Your task to perform on an android device: change the clock display to show seconds Image 0: 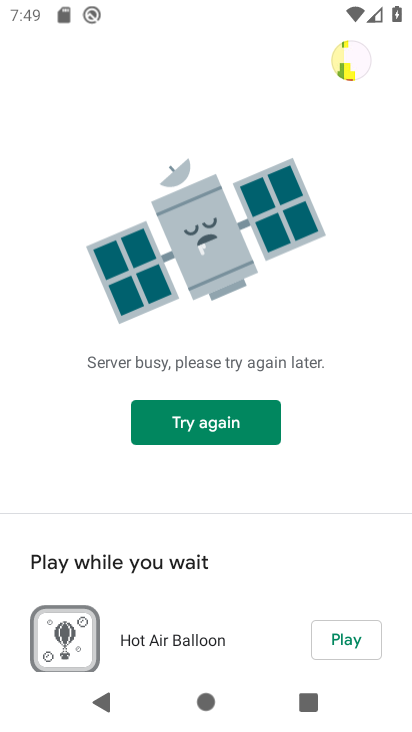
Step 0: press home button
Your task to perform on an android device: change the clock display to show seconds Image 1: 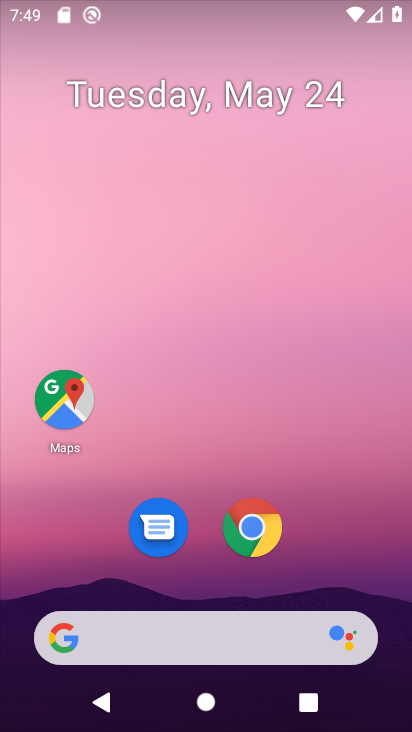
Step 1: drag from (352, 563) to (319, 149)
Your task to perform on an android device: change the clock display to show seconds Image 2: 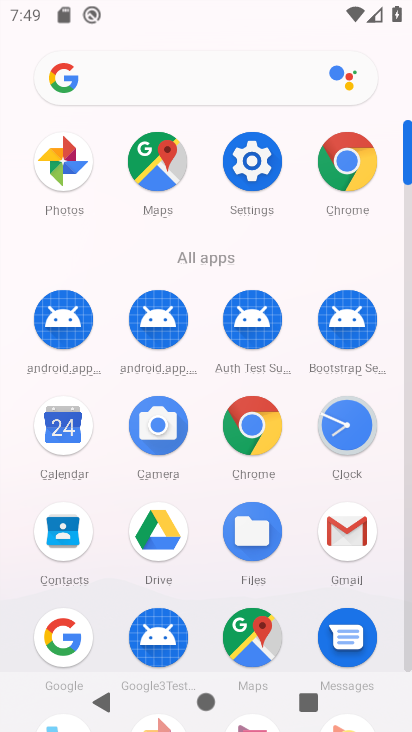
Step 2: click (350, 423)
Your task to perform on an android device: change the clock display to show seconds Image 3: 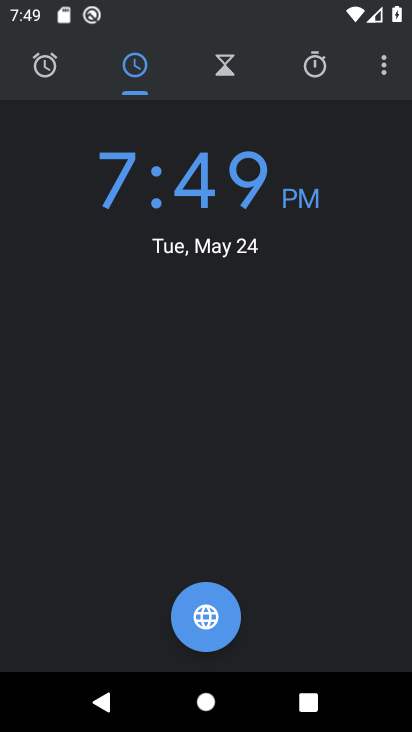
Step 3: click (384, 71)
Your task to perform on an android device: change the clock display to show seconds Image 4: 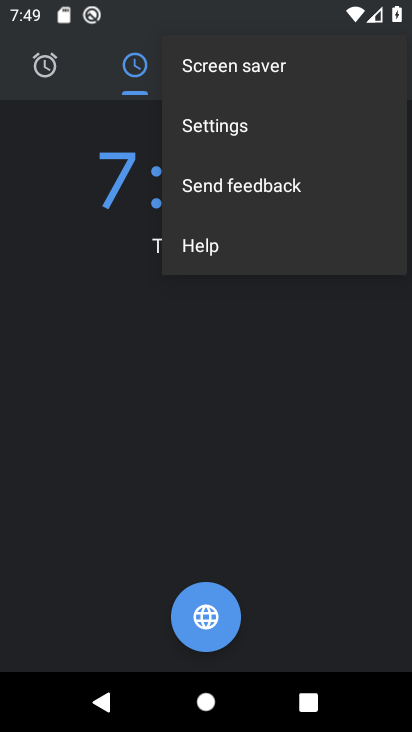
Step 4: click (233, 139)
Your task to perform on an android device: change the clock display to show seconds Image 5: 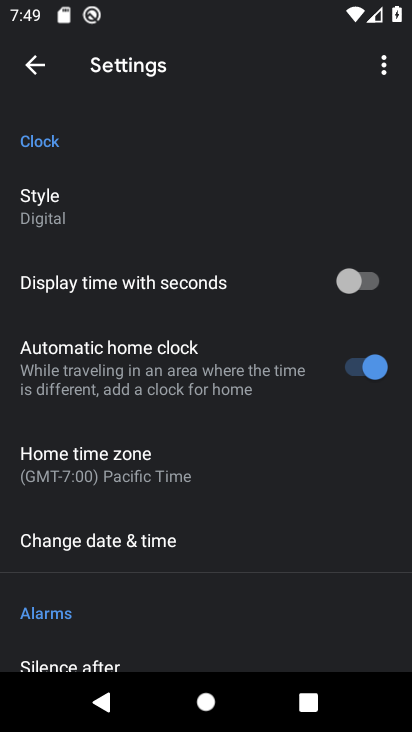
Step 5: click (362, 292)
Your task to perform on an android device: change the clock display to show seconds Image 6: 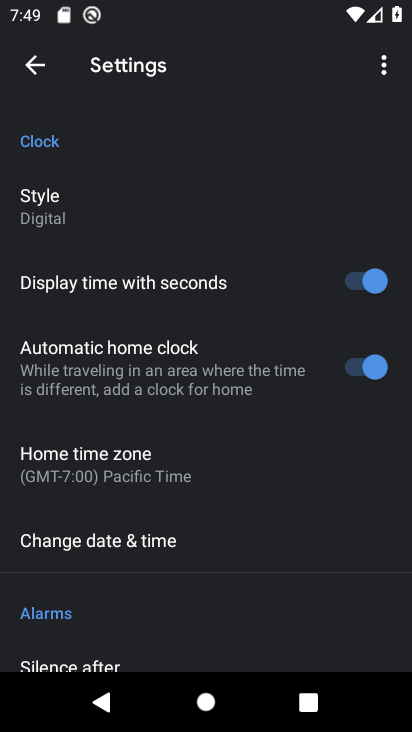
Step 6: task complete